Your task to perform on an android device: turn off javascript in the chrome app Image 0: 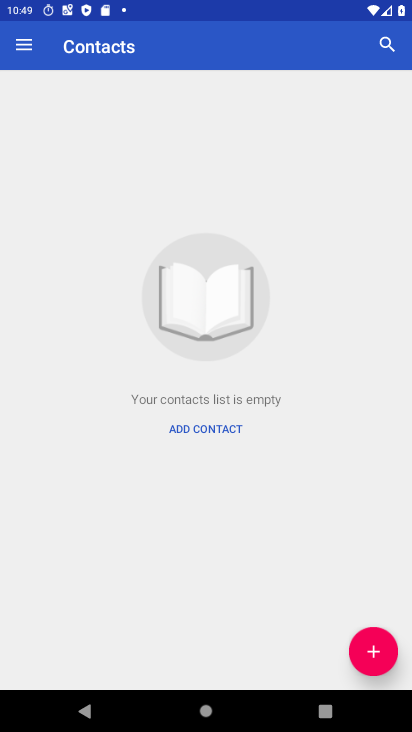
Step 0: press home button
Your task to perform on an android device: turn off javascript in the chrome app Image 1: 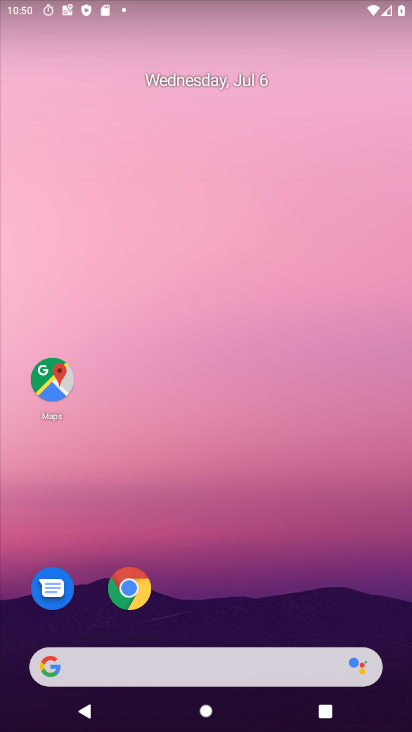
Step 1: click (136, 596)
Your task to perform on an android device: turn off javascript in the chrome app Image 2: 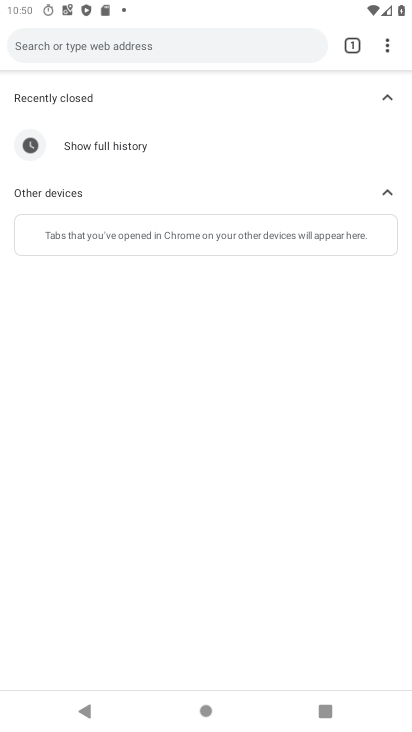
Step 2: click (389, 49)
Your task to perform on an android device: turn off javascript in the chrome app Image 3: 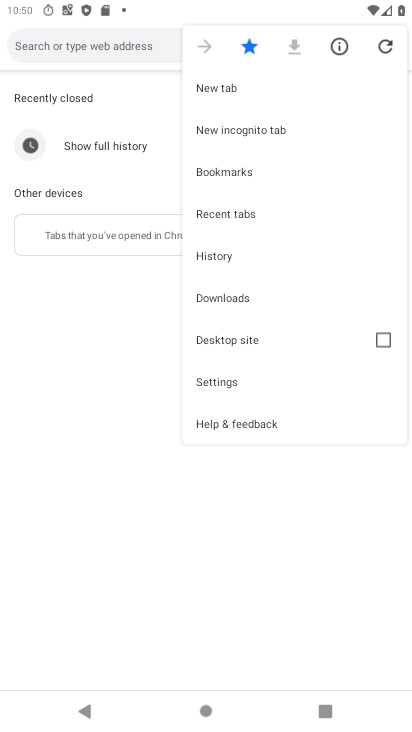
Step 3: click (214, 382)
Your task to perform on an android device: turn off javascript in the chrome app Image 4: 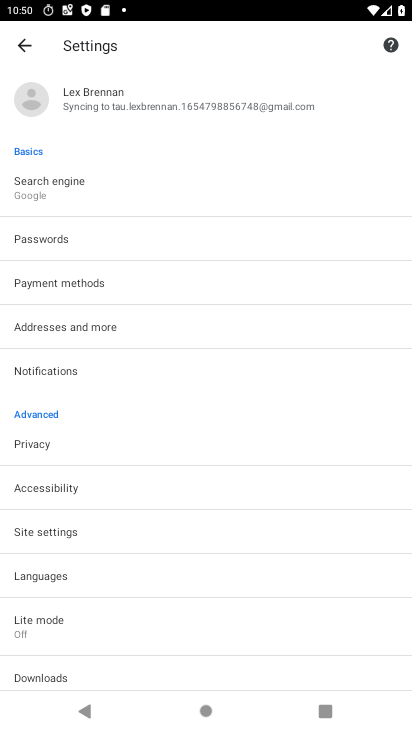
Step 4: click (63, 528)
Your task to perform on an android device: turn off javascript in the chrome app Image 5: 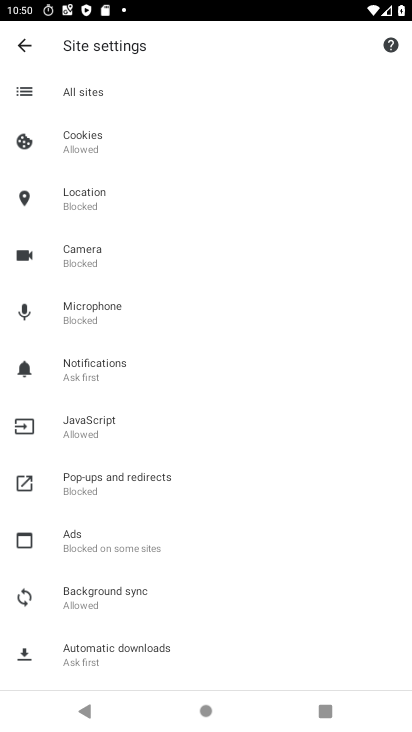
Step 5: click (91, 425)
Your task to perform on an android device: turn off javascript in the chrome app Image 6: 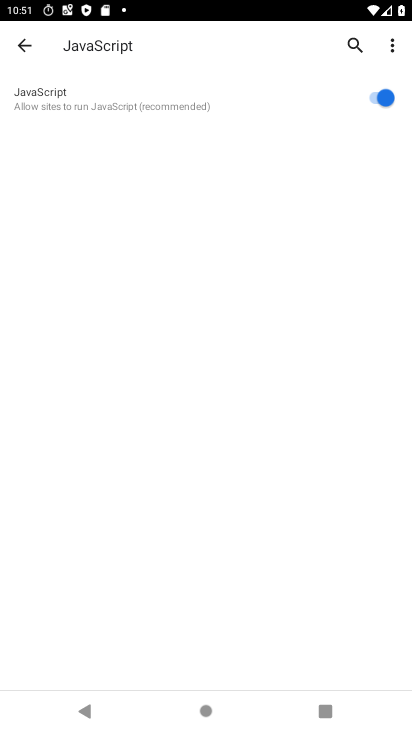
Step 6: click (377, 99)
Your task to perform on an android device: turn off javascript in the chrome app Image 7: 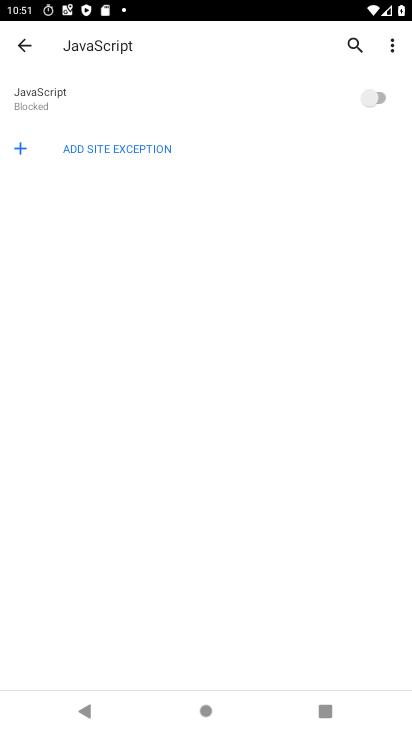
Step 7: task complete